Your task to perform on an android device: add a contact Image 0: 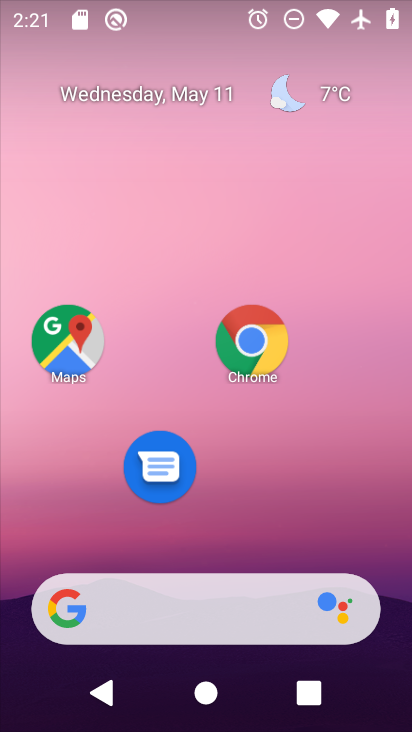
Step 0: press home button
Your task to perform on an android device: add a contact Image 1: 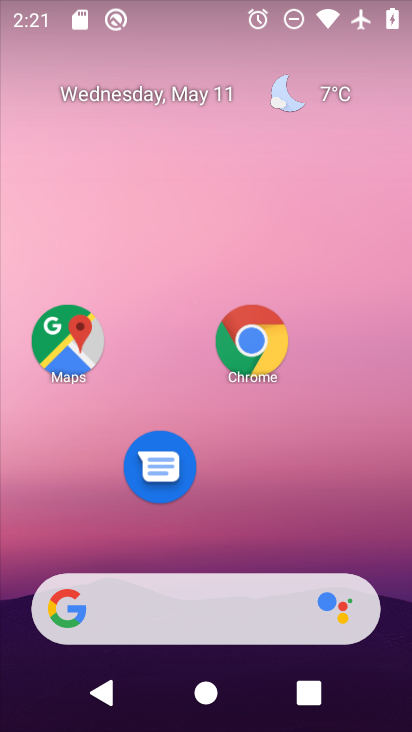
Step 1: drag from (170, 586) to (326, 73)
Your task to perform on an android device: add a contact Image 2: 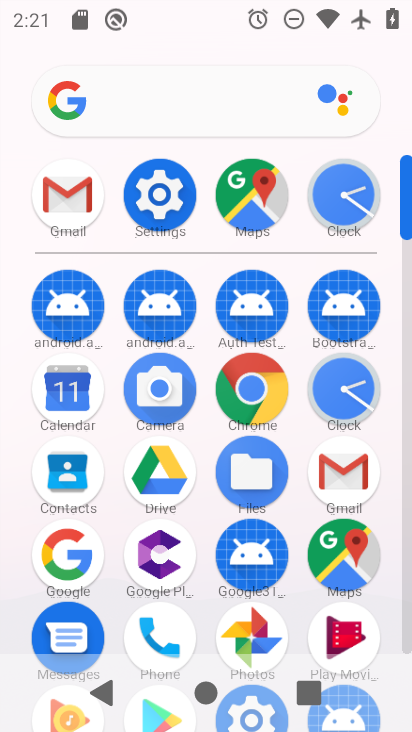
Step 2: click (69, 484)
Your task to perform on an android device: add a contact Image 3: 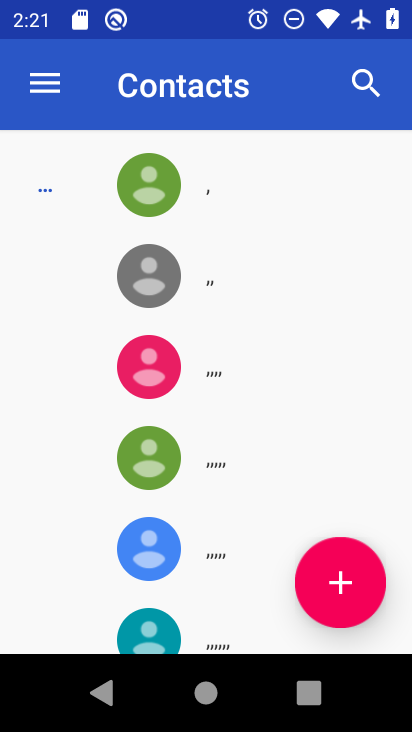
Step 3: click (341, 582)
Your task to perform on an android device: add a contact Image 4: 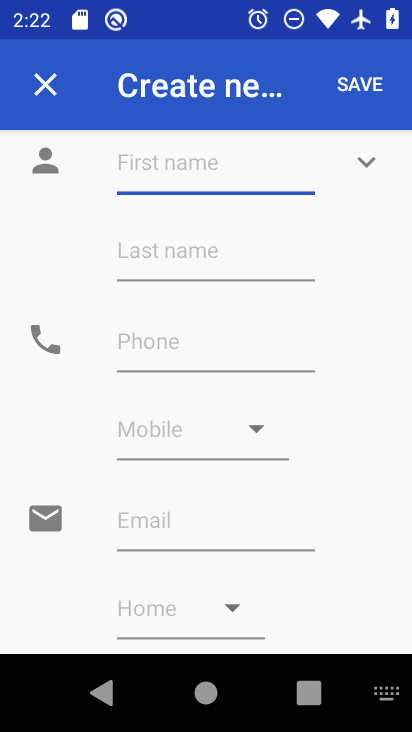
Step 4: type "bhgu"
Your task to perform on an android device: add a contact Image 5: 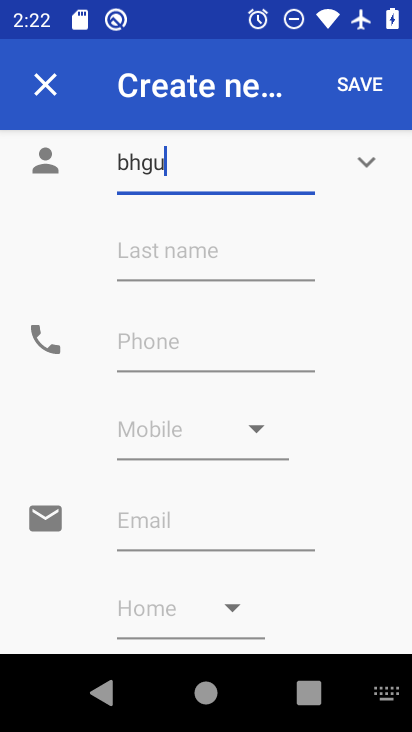
Step 5: click (137, 342)
Your task to perform on an android device: add a contact Image 6: 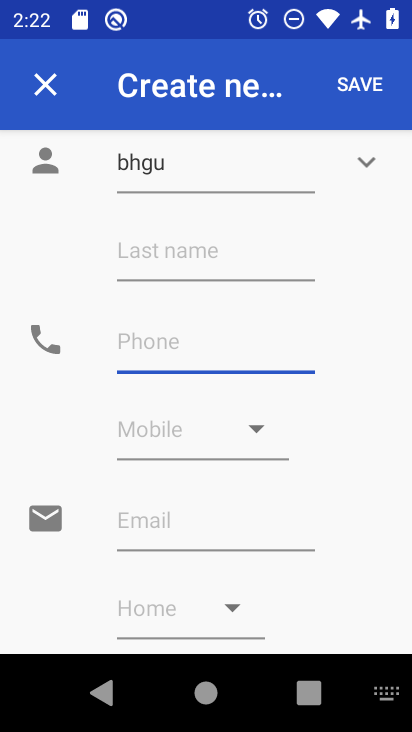
Step 6: type "3454"
Your task to perform on an android device: add a contact Image 7: 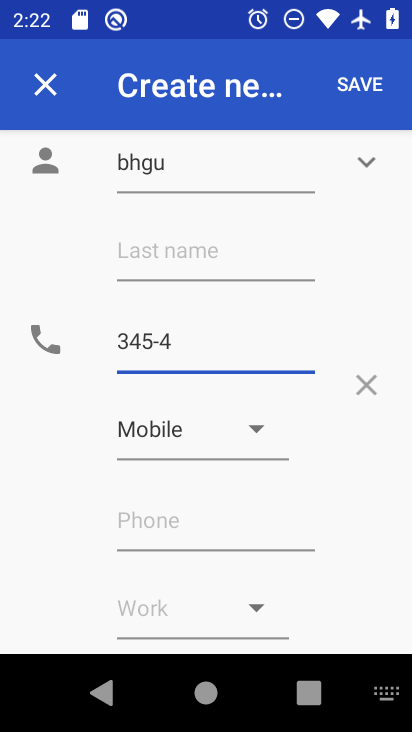
Step 7: click (369, 83)
Your task to perform on an android device: add a contact Image 8: 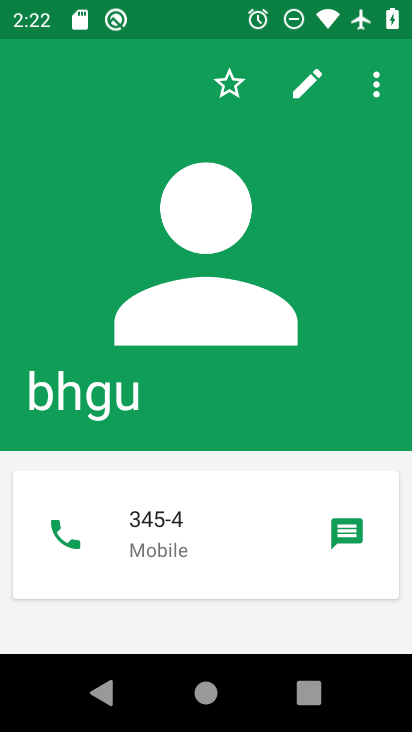
Step 8: task complete